Your task to perform on an android device: Go to Yahoo.com Image 0: 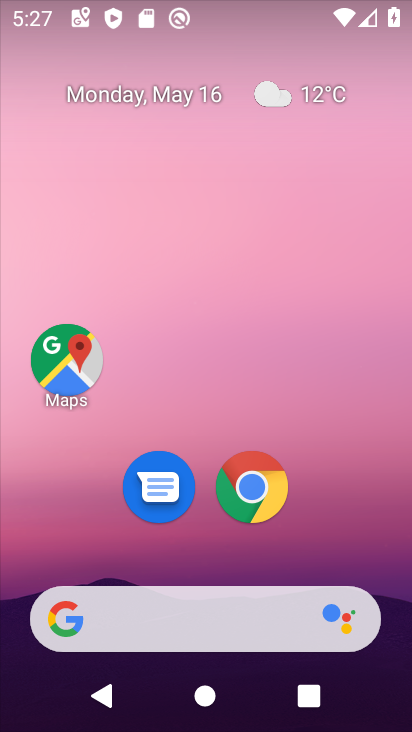
Step 0: click (268, 478)
Your task to perform on an android device: Go to Yahoo.com Image 1: 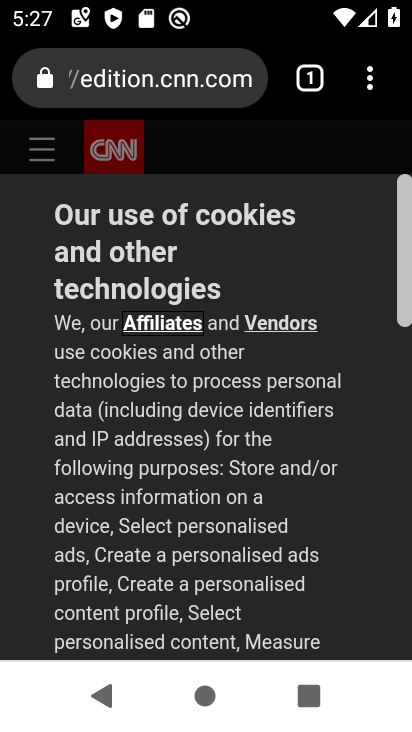
Step 1: click (197, 71)
Your task to perform on an android device: Go to Yahoo.com Image 2: 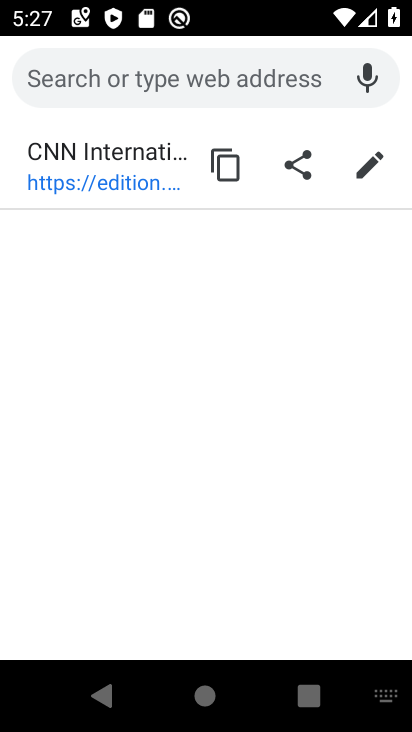
Step 2: type "yahoo.com"
Your task to perform on an android device: Go to Yahoo.com Image 3: 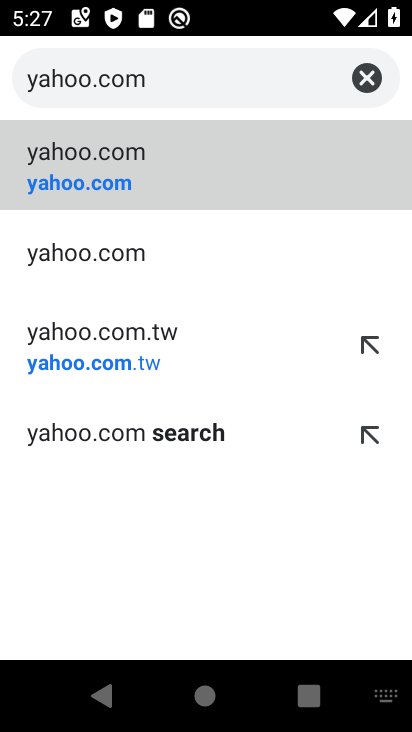
Step 3: click (46, 194)
Your task to perform on an android device: Go to Yahoo.com Image 4: 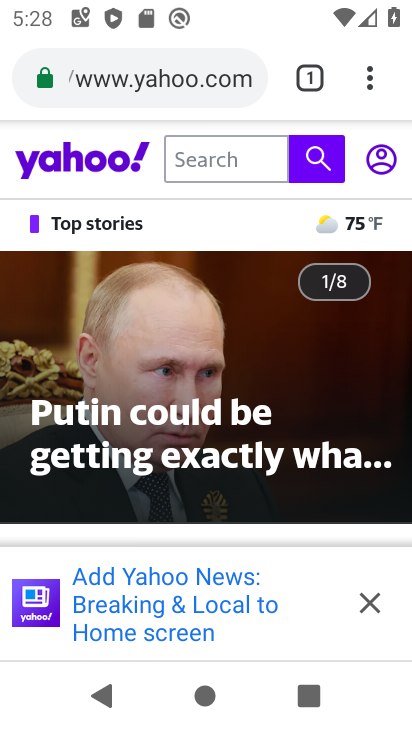
Step 4: task complete